Your task to perform on an android device: Show me popular videos on Youtube Image 0: 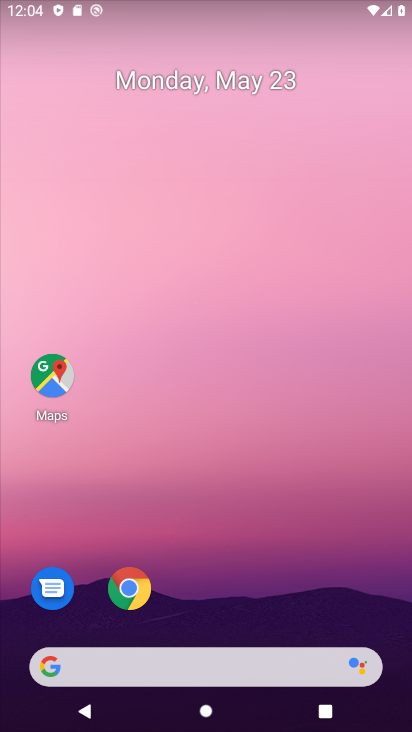
Step 0: click (212, 208)
Your task to perform on an android device: Show me popular videos on Youtube Image 1: 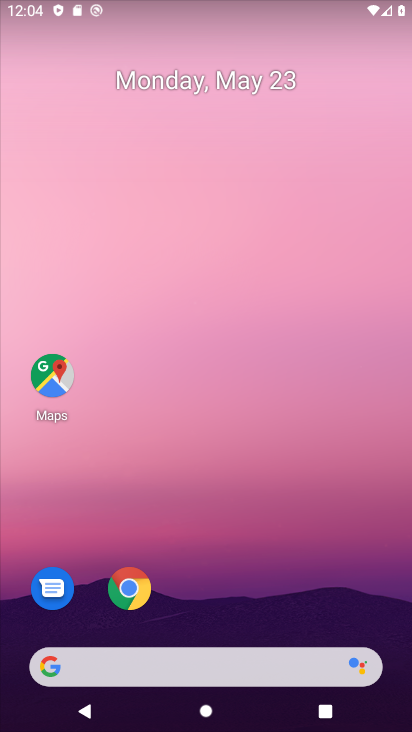
Step 1: drag from (239, 724) to (203, 9)
Your task to perform on an android device: Show me popular videos on Youtube Image 2: 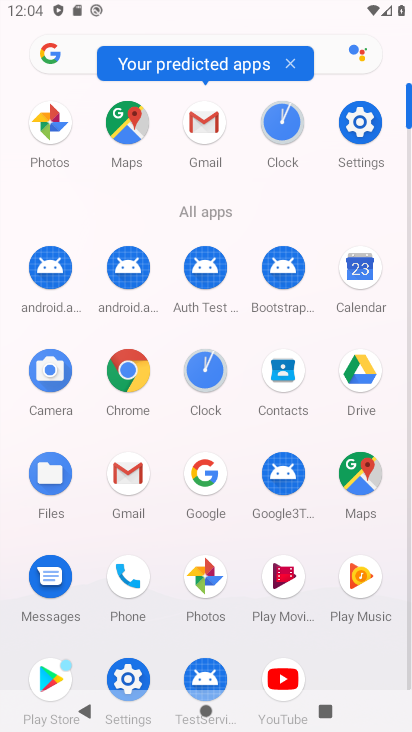
Step 2: drag from (219, 535) to (164, 37)
Your task to perform on an android device: Show me popular videos on Youtube Image 3: 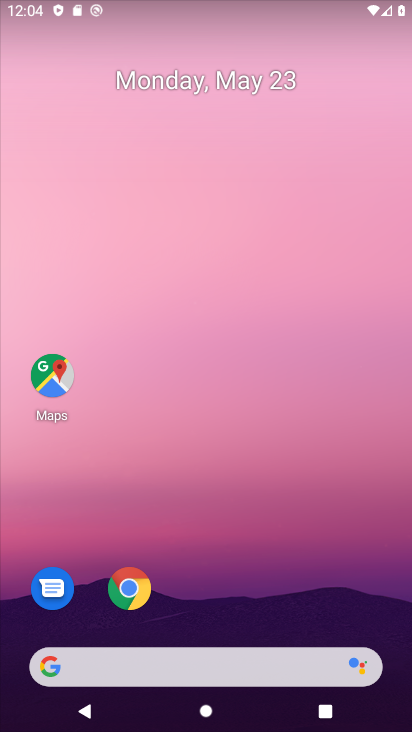
Step 3: click (287, 680)
Your task to perform on an android device: Show me popular videos on Youtube Image 4: 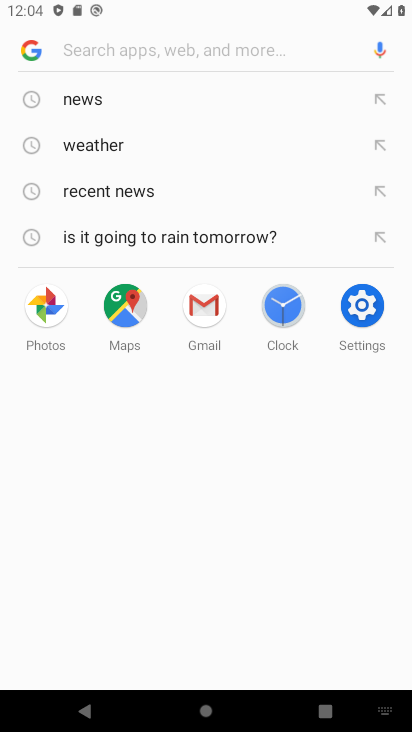
Step 4: press home button
Your task to perform on an android device: Show me popular videos on Youtube Image 5: 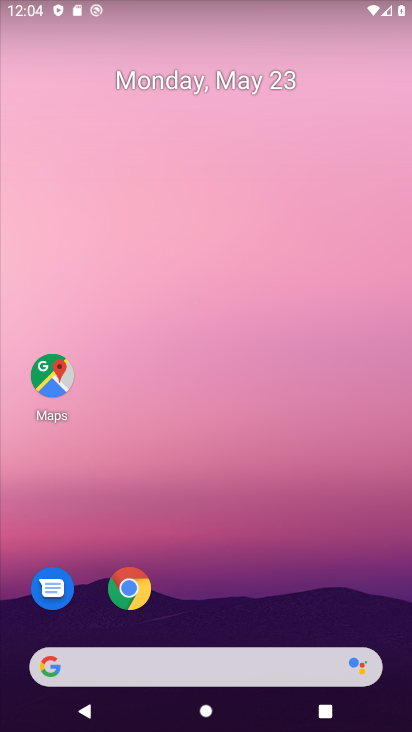
Step 5: drag from (232, 725) to (232, 62)
Your task to perform on an android device: Show me popular videos on Youtube Image 6: 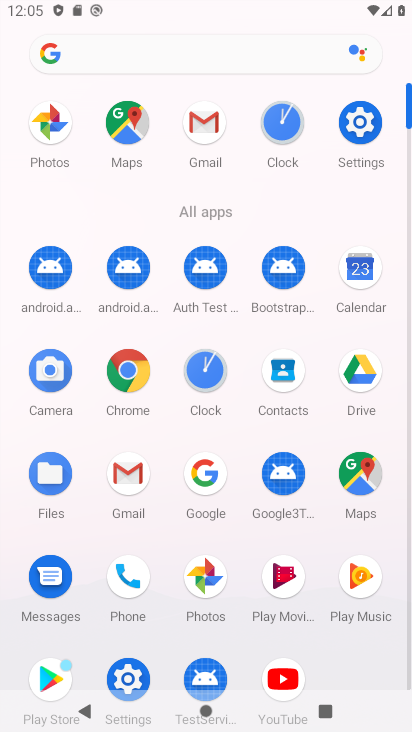
Step 6: click (281, 681)
Your task to perform on an android device: Show me popular videos on Youtube Image 7: 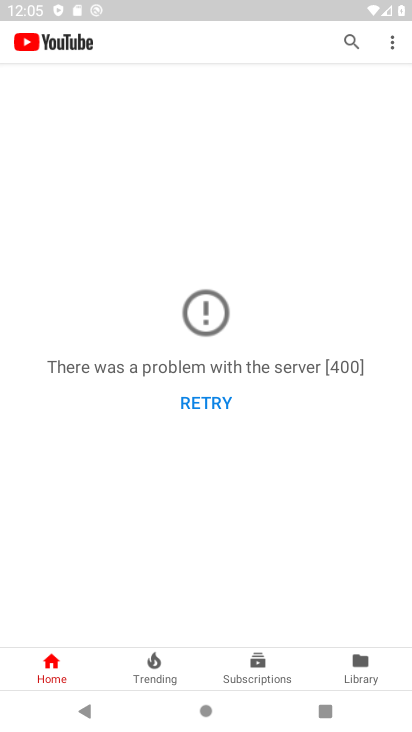
Step 7: click (210, 396)
Your task to perform on an android device: Show me popular videos on Youtube Image 8: 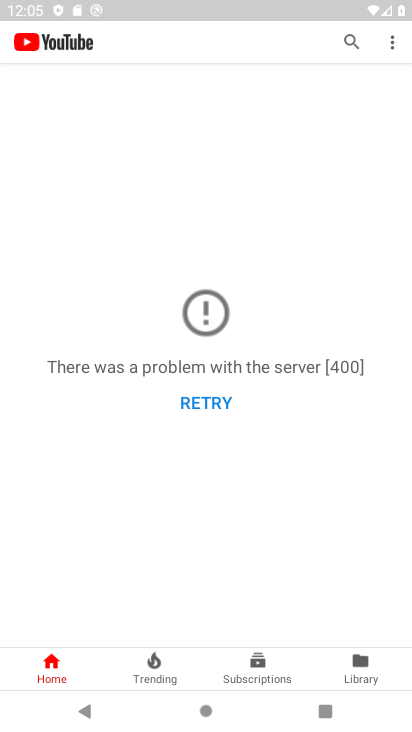
Step 8: task complete